Your task to perform on an android device: What's the weather today? Image 0: 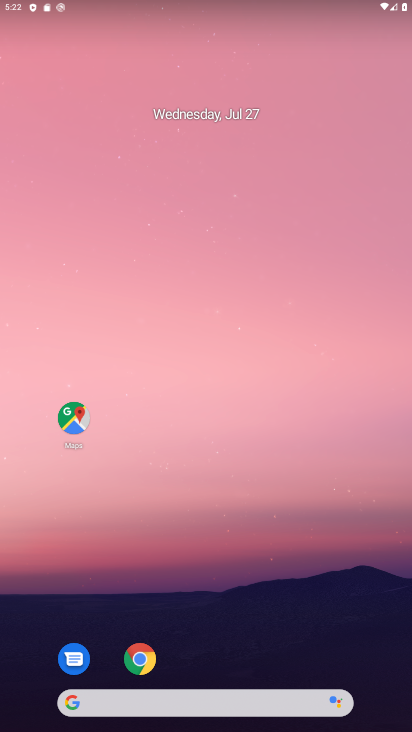
Step 0: drag from (248, 657) to (351, 102)
Your task to perform on an android device: What's the weather today? Image 1: 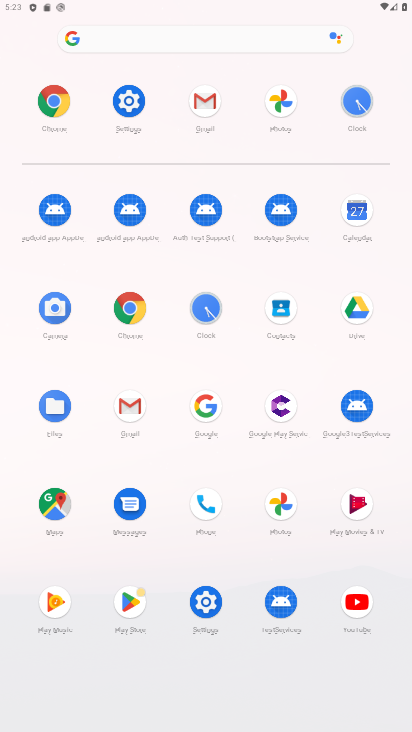
Step 1: click (131, 305)
Your task to perform on an android device: What's the weather today? Image 2: 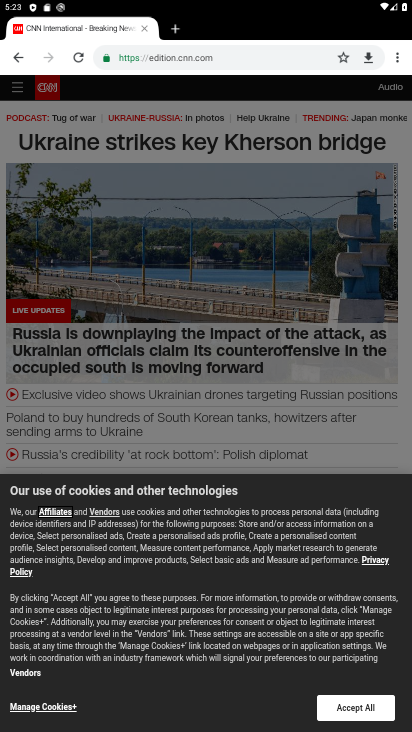
Step 2: click (183, 61)
Your task to perform on an android device: What's the weather today? Image 3: 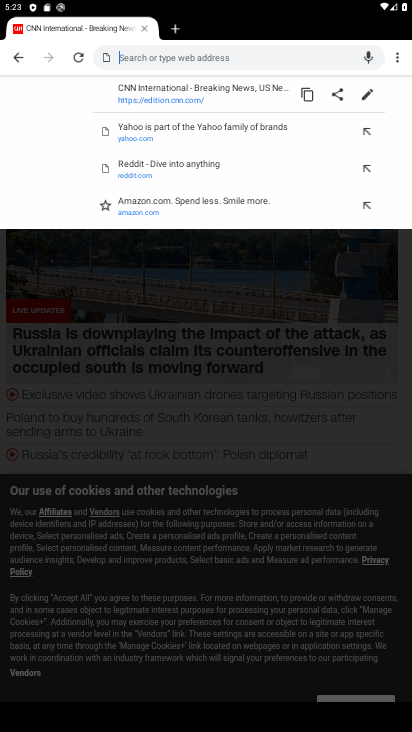
Step 3: type "What's the weather today?"
Your task to perform on an android device: What's the weather today? Image 4: 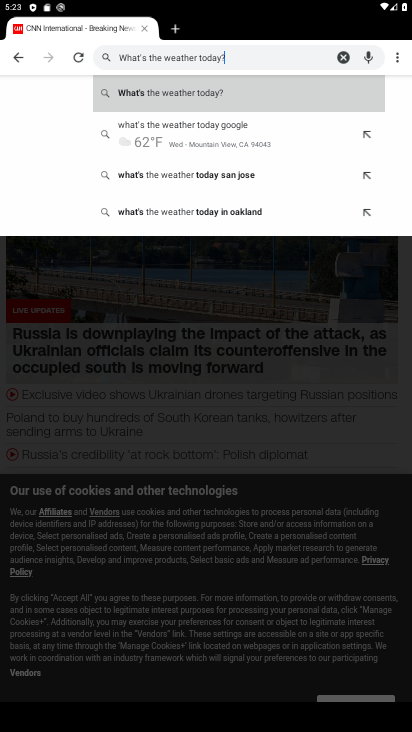
Step 4: click (211, 90)
Your task to perform on an android device: What's the weather today? Image 5: 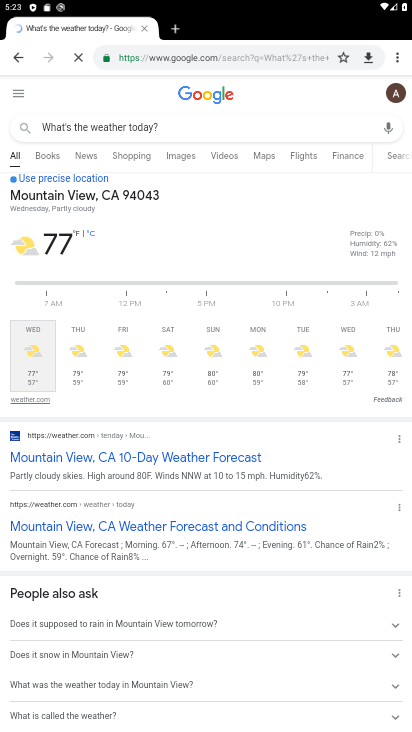
Step 5: task complete